Your task to perform on an android device: Open the phone app and click the voicemail tab. Image 0: 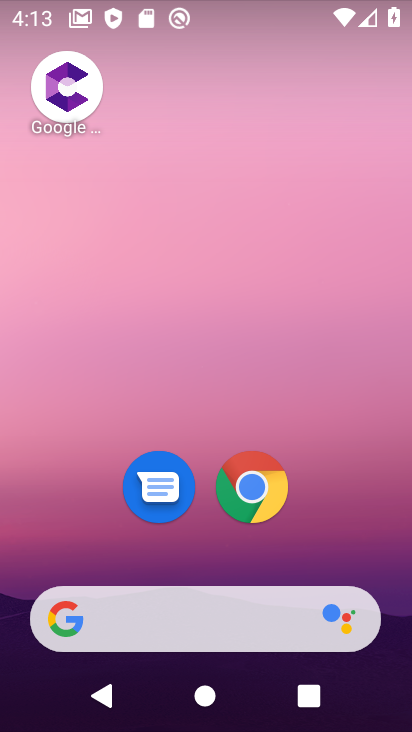
Step 0: drag from (211, 535) to (211, 49)
Your task to perform on an android device: Open the phone app and click the voicemail tab. Image 1: 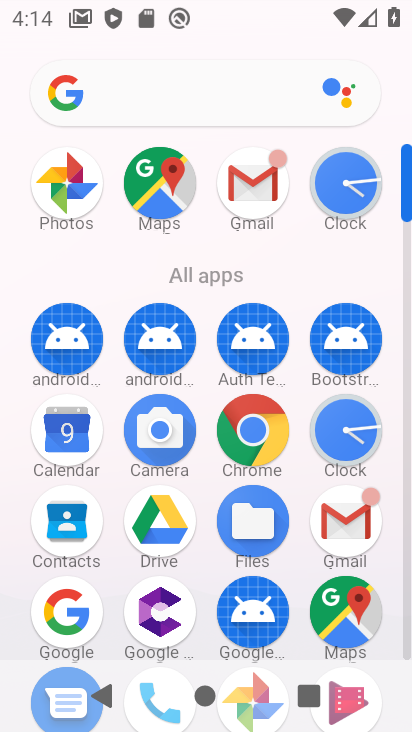
Step 1: drag from (161, 613) to (161, 506)
Your task to perform on an android device: Open the phone app and click the voicemail tab. Image 2: 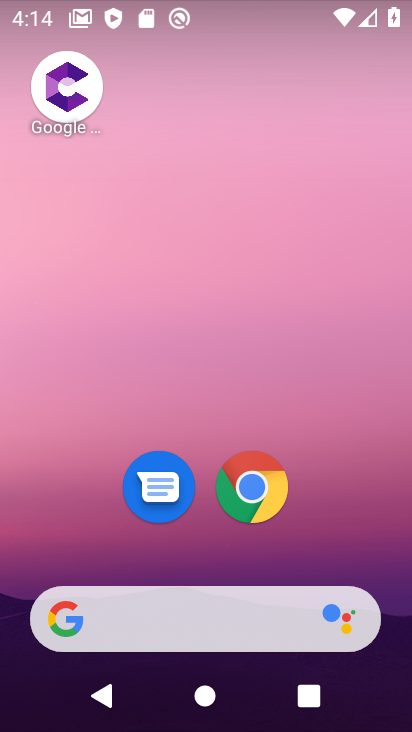
Step 2: drag from (161, 520) to (173, 129)
Your task to perform on an android device: Open the phone app and click the voicemail tab. Image 3: 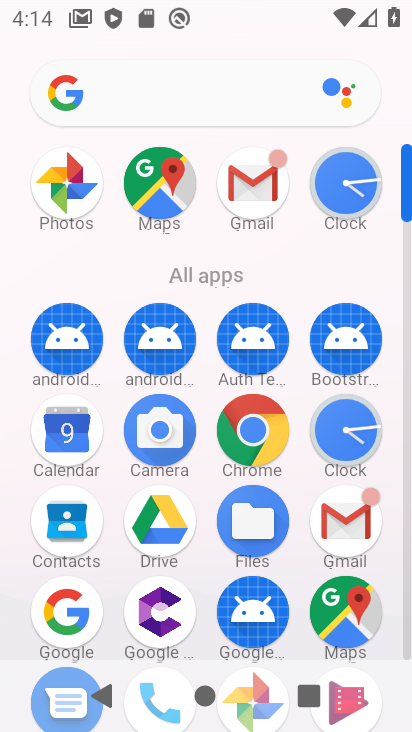
Step 3: drag from (198, 584) to (199, 456)
Your task to perform on an android device: Open the phone app and click the voicemail tab. Image 4: 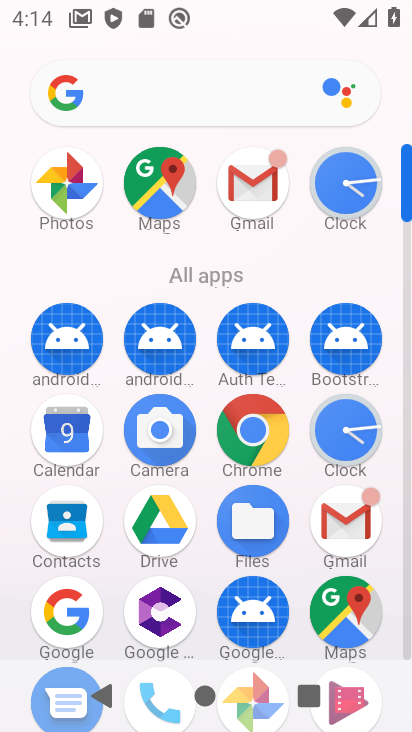
Step 4: drag from (207, 501) to (206, 318)
Your task to perform on an android device: Open the phone app and click the voicemail tab. Image 5: 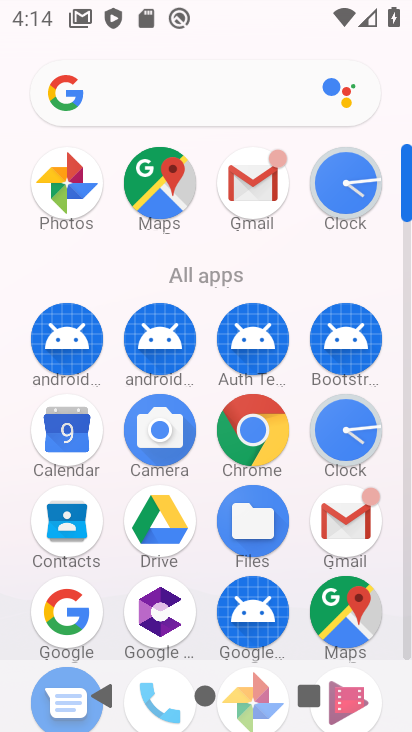
Step 5: drag from (194, 627) to (232, 11)
Your task to perform on an android device: Open the phone app and click the voicemail tab. Image 6: 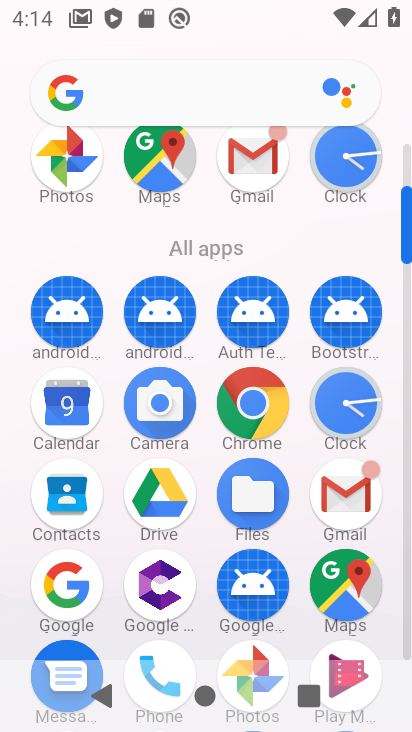
Step 6: click (149, 652)
Your task to perform on an android device: Open the phone app and click the voicemail tab. Image 7: 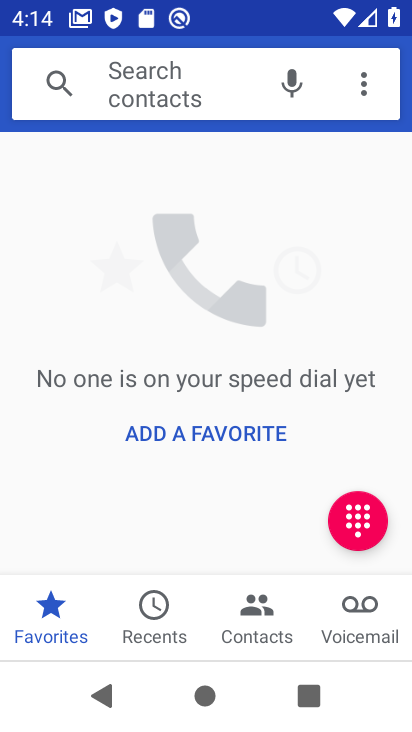
Step 7: click (340, 629)
Your task to perform on an android device: Open the phone app and click the voicemail tab. Image 8: 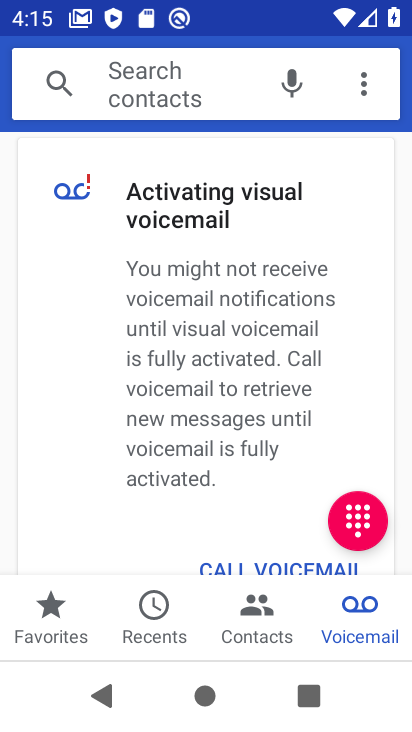
Step 8: task complete